Your task to perform on an android device: change notification settings in the gmail app Image 0: 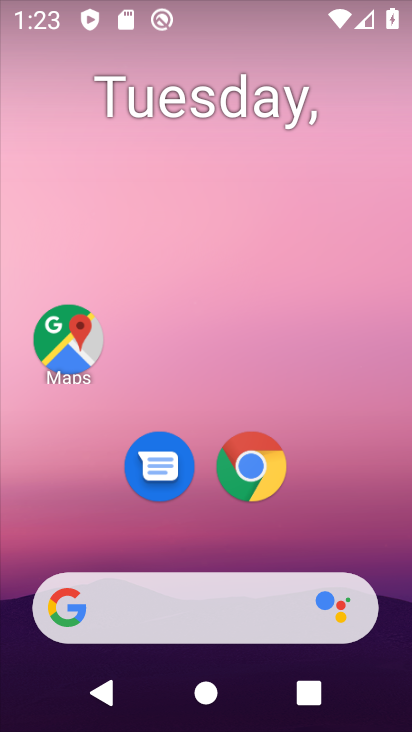
Step 0: drag from (367, 502) to (317, 11)
Your task to perform on an android device: change notification settings in the gmail app Image 1: 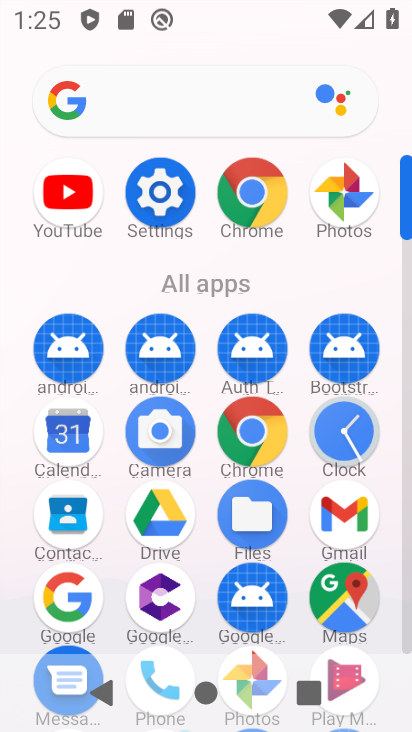
Step 1: task complete